Your task to perform on an android device: find photos in the google photos app Image 0: 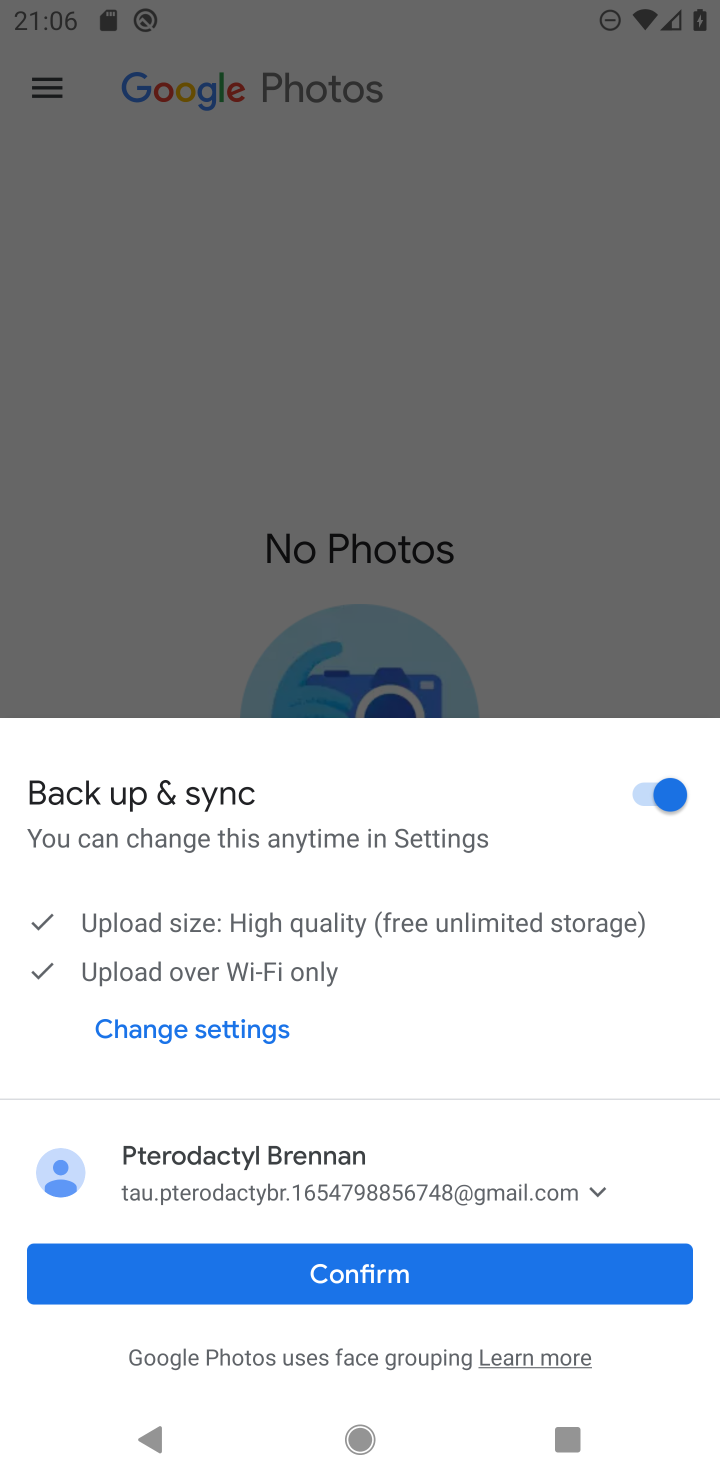
Step 0: press home button
Your task to perform on an android device: find photos in the google photos app Image 1: 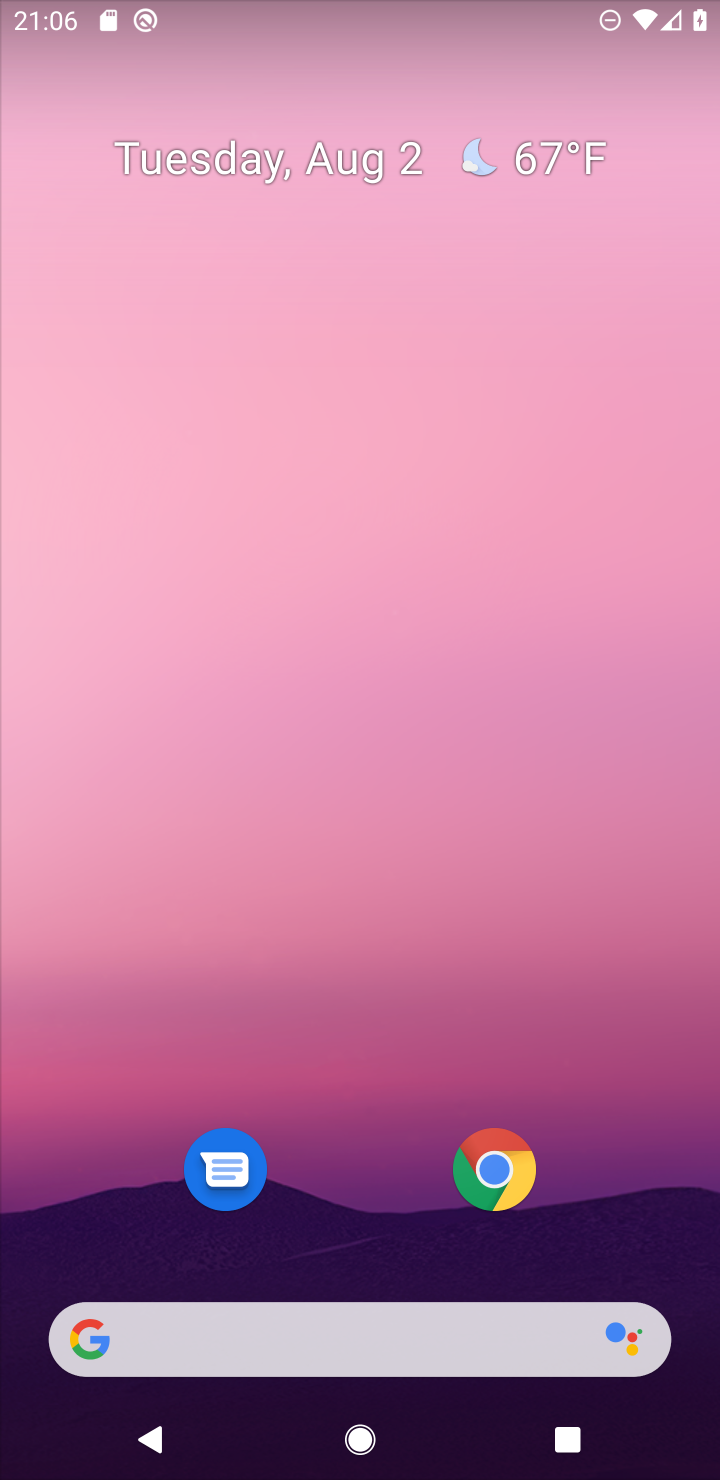
Step 1: drag from (331, 1047) to (347, 106)
Your task to perform on an android device: find photos in the google photos app Image 2: 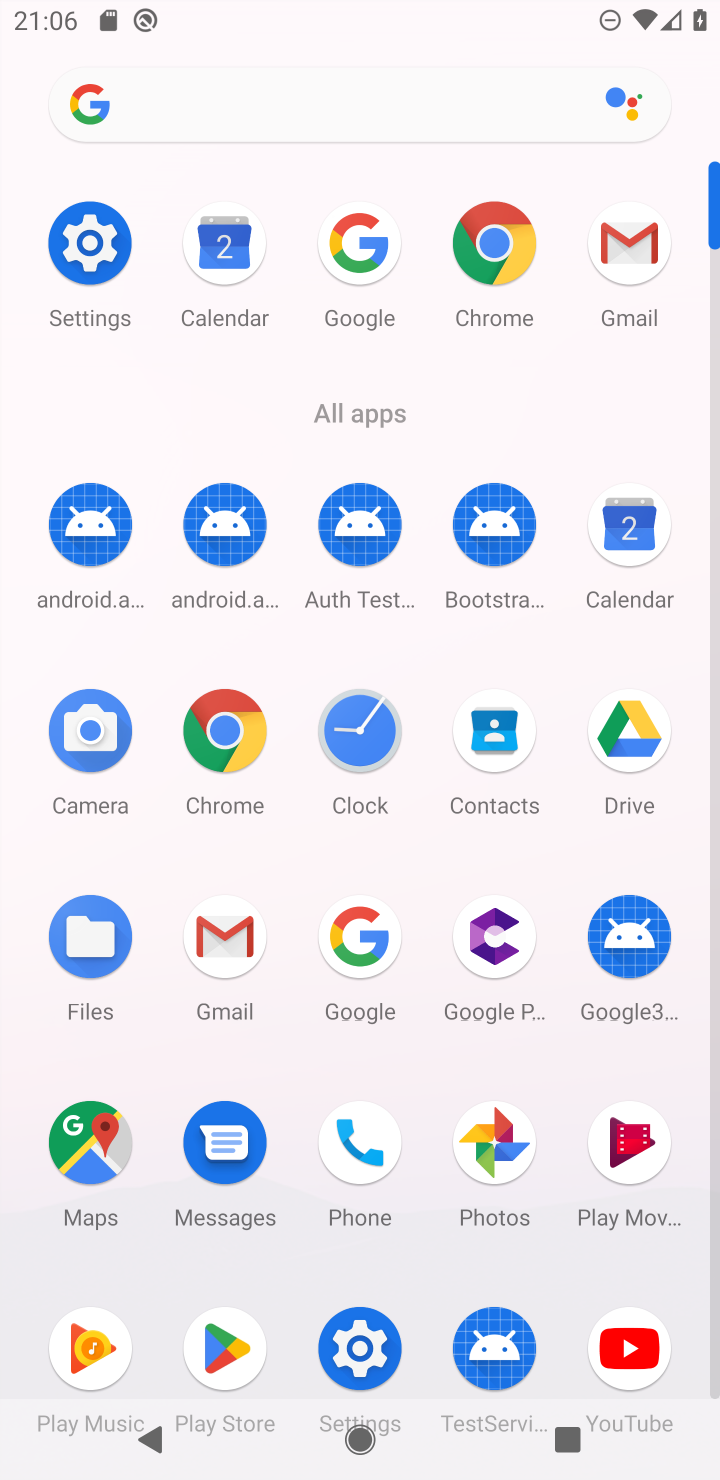
Step 2: click (508, 1146)
Your task to perform on an android device: find photos in the google photos app Image 3: 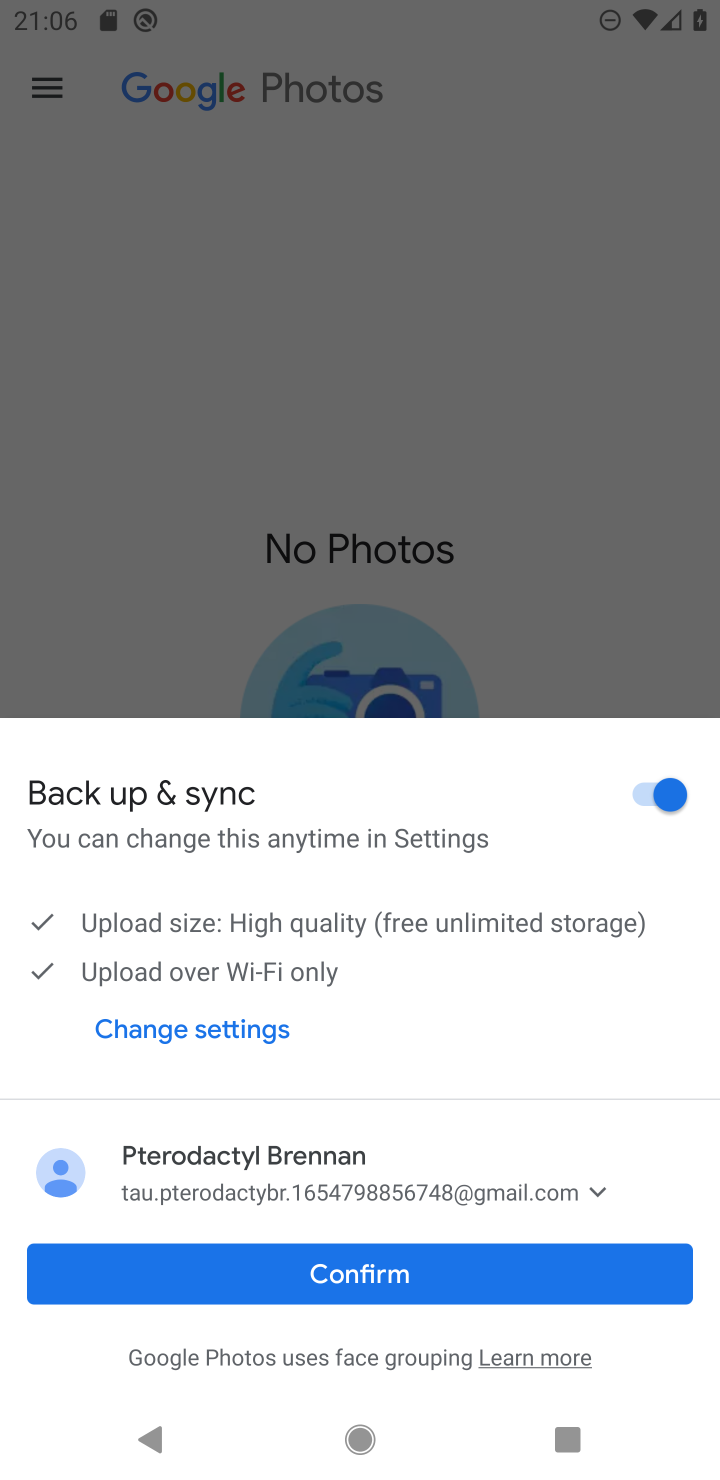
Step 3: click (365, 1277)
Your task to perform on an android device: find photos in the google photos app Image 4: 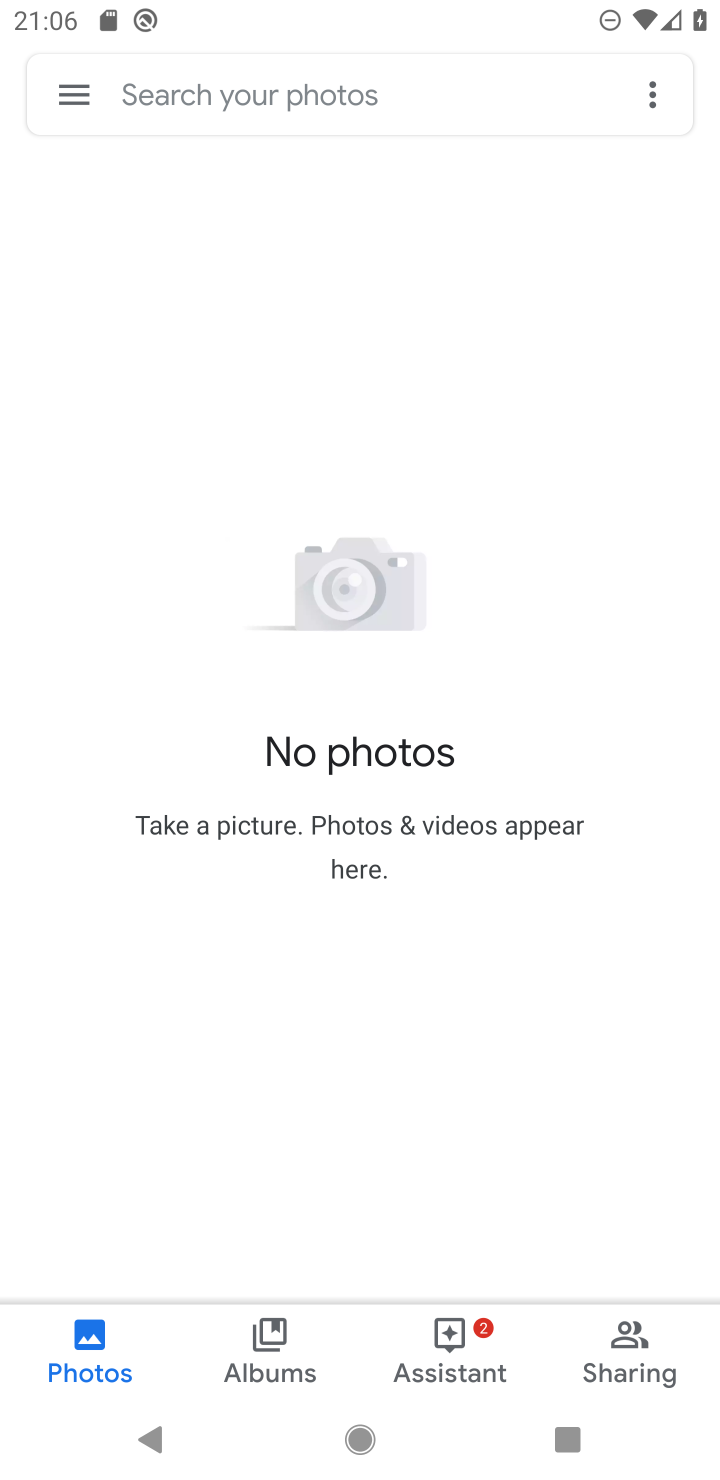
Step 4: task complete